Your task to perform on an android device: check battery use Image 0: 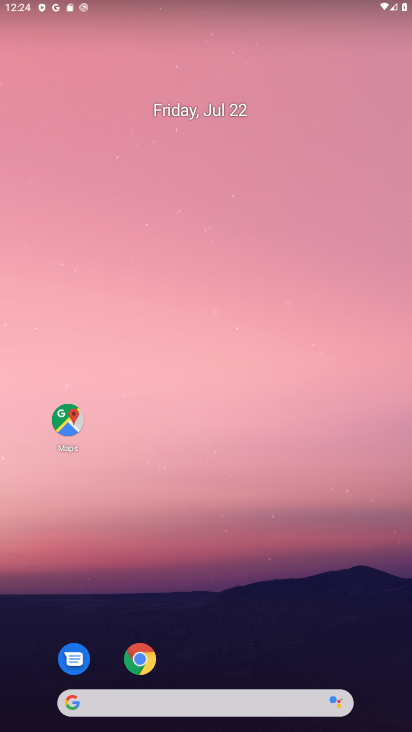
Step 0: click (183, 154)
Your task to perform on an android device: check battery use Image 1: 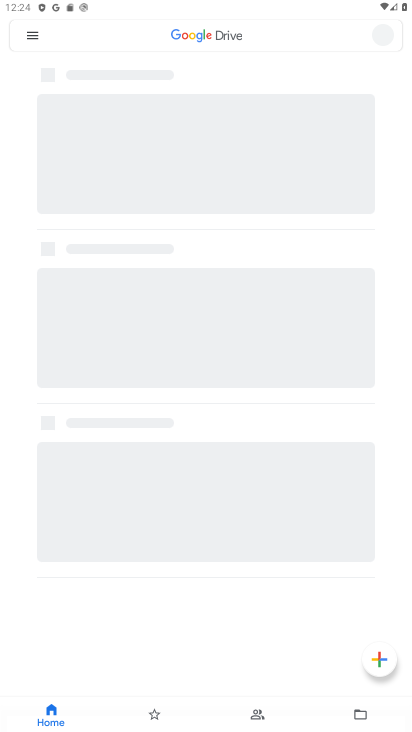
Step 1: drag from (230, 714) to (141, 196)
Your task to perform on an android device: check battery use Image 2: 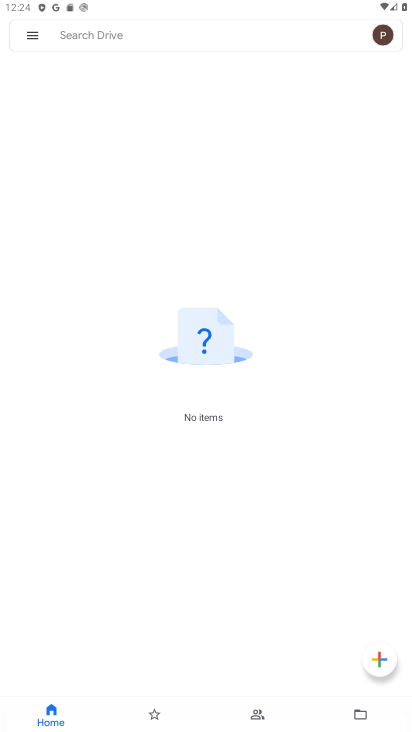
Step 2: press home button
Your task to perform on an android device: check battery use Image 3: 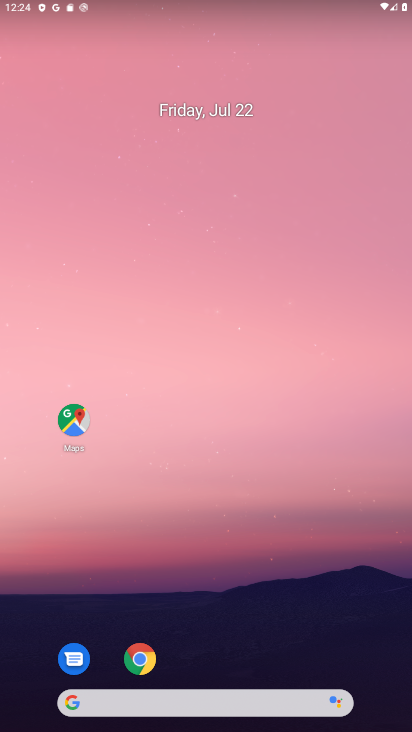
Step 3: drag from (267, 688) to (250, 171)
Your task to perform on an android device: check battery use Image 4: 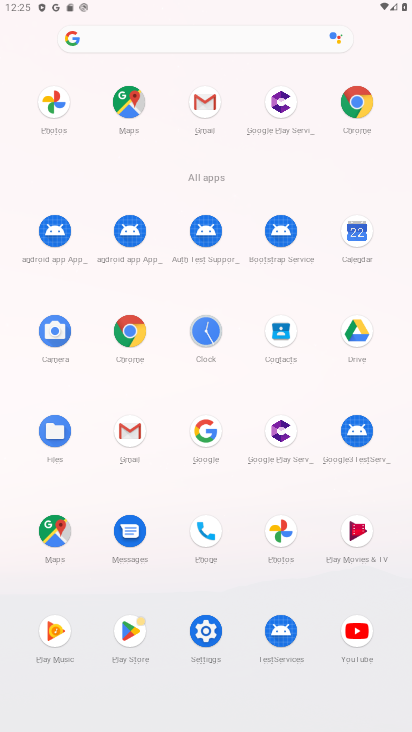
Step 4: click (208, 628)
Your task to perform on an android device: check battery use Image 5: 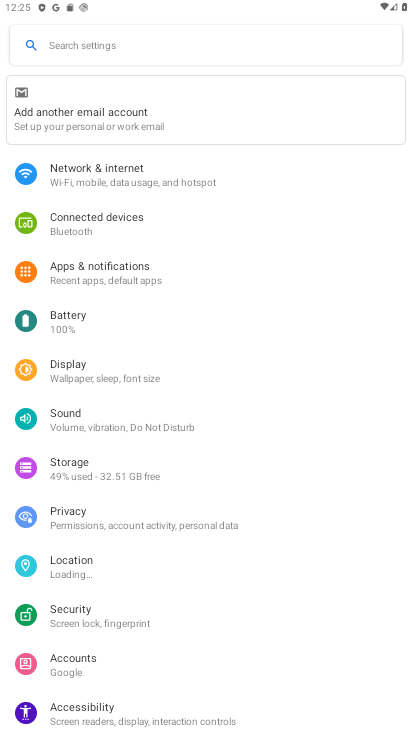
Step 5: click (101, 329)
Your task to perform on an android device: check battery use Image 6: 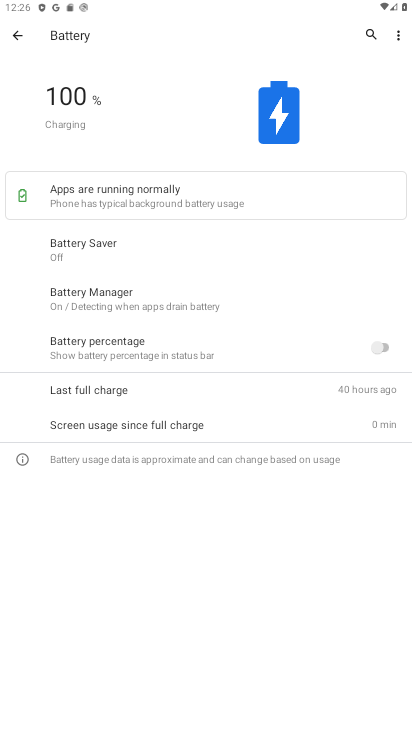
Step 6: task complete